Your task to perform on an android device: Open settings on Google Maps Image 0: 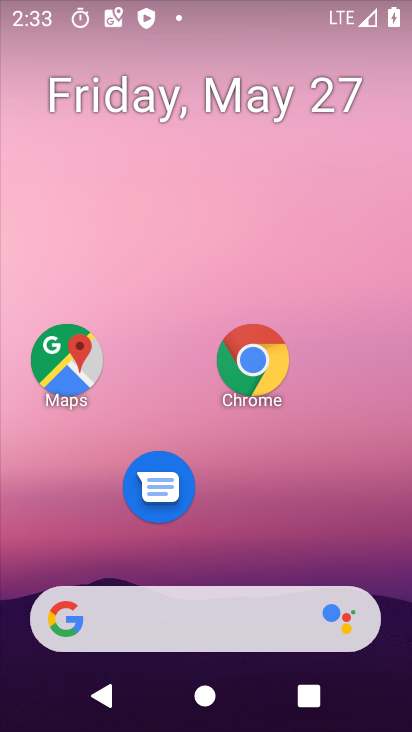
Step 0: click (69, 367)
Your task to perform on an android device: Open settings on Google Maps Image 1: 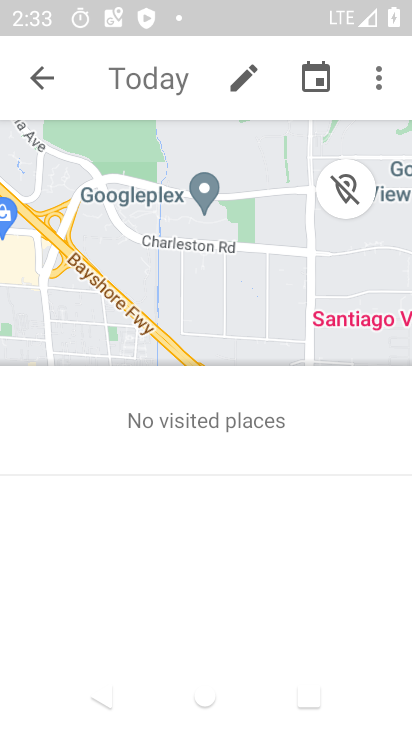
Step 1: press back button
Your task to perform on an android device: Open settings on Google Maps Image 2: 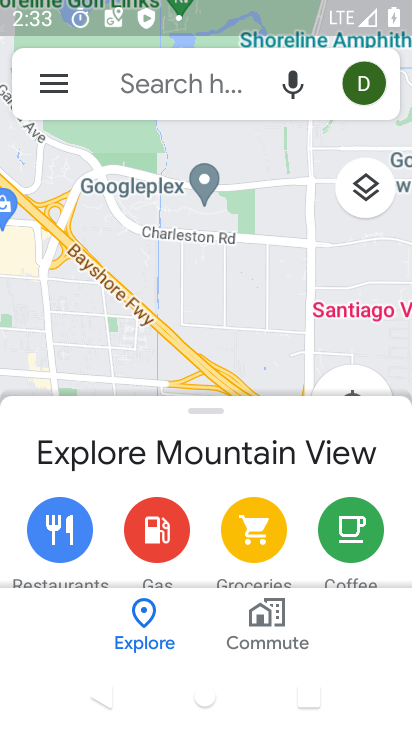
Step 2: click (54, 73)
Your task to perform on an android device: Open settings on Google Maps Image 3: 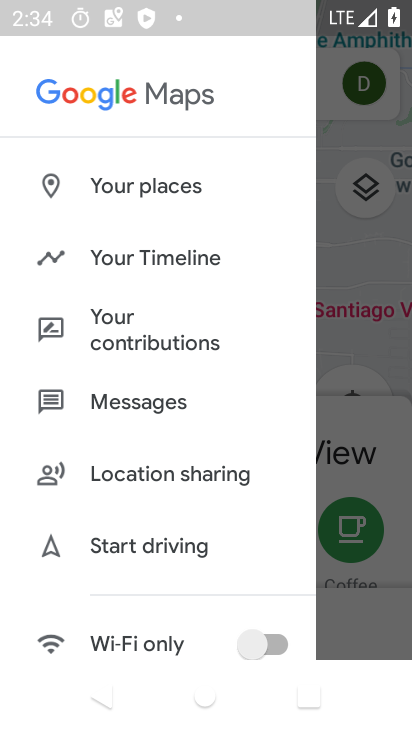
Step 3: drag from (185, 250) to (166, 145)
Your task to perform on an android device: Open settings on Google Maps Image 4: 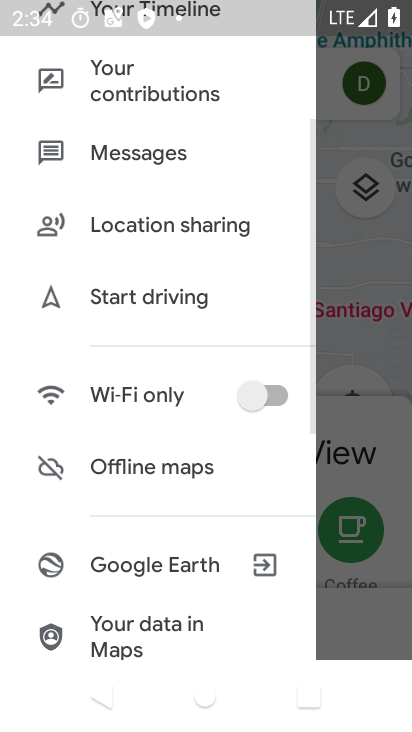
Step 4: drag from (157, 320) to (144, 163)
Your task to perform on an android device: Open settings on Google Maps Image 5: 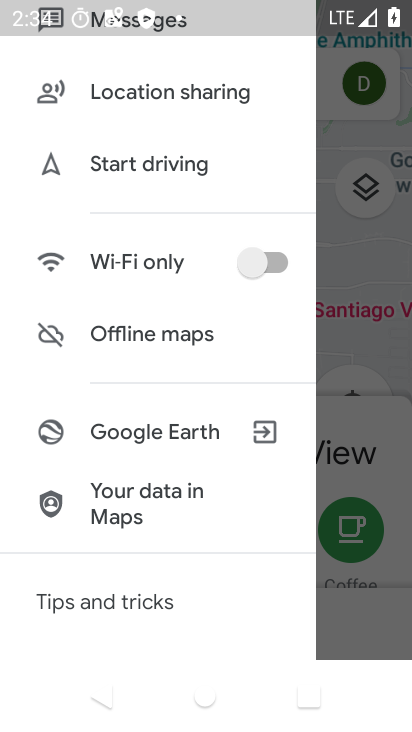
Step 5: drag from (148, 589) to (169, 288)
Your task to perform on an android device: Open settings on Google Maps Image 6: 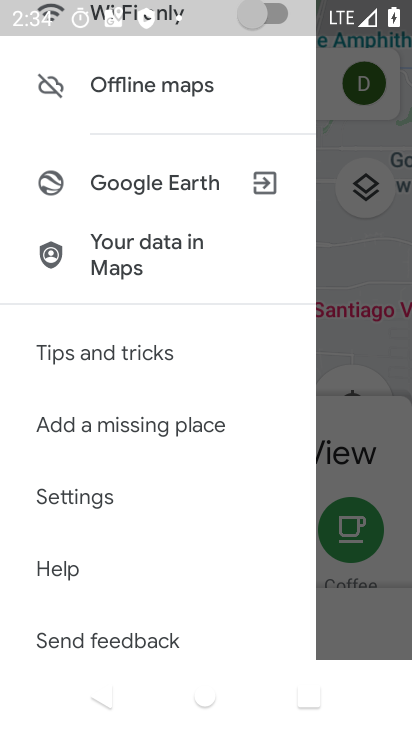
Step 6: click (63, 497)
Your task to perform on an android device: Open settings on Google Maps Image 7: 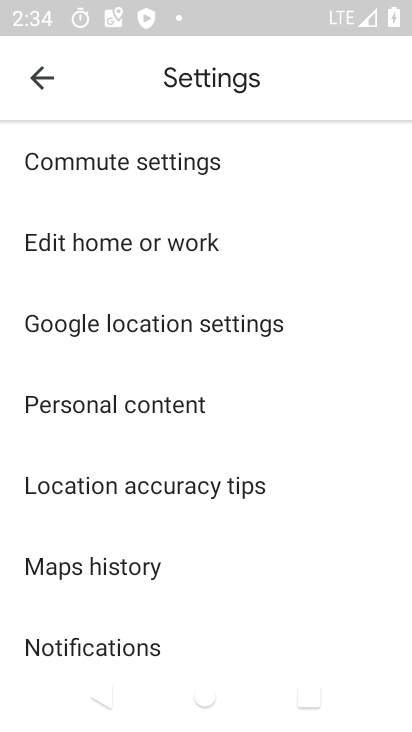
Step 7: task complete